Your task to perform on an android device: check storage Image 0: 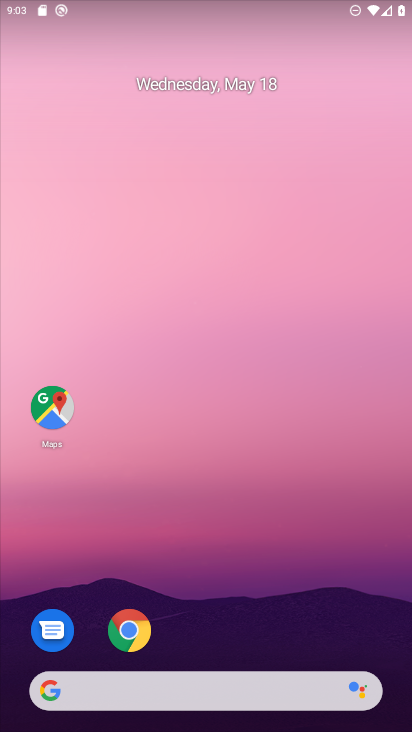
Step 0: drag from (209, 669) to (161, 92)
Your task to perform on an android device: check storage Image 1: 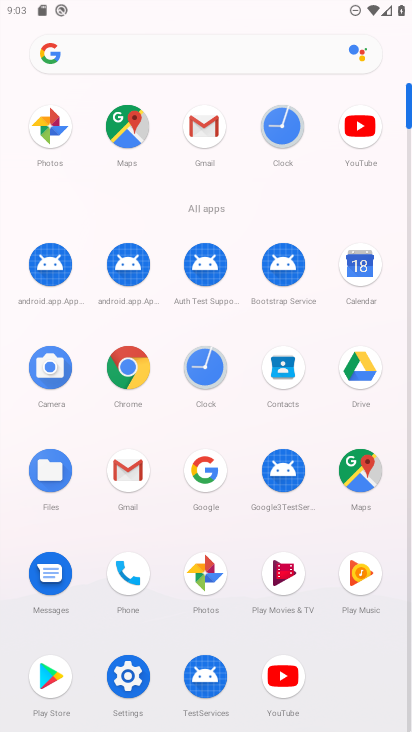
Step 1: click (142, 673)
Your task to perform on an android device: check storage Image 2: 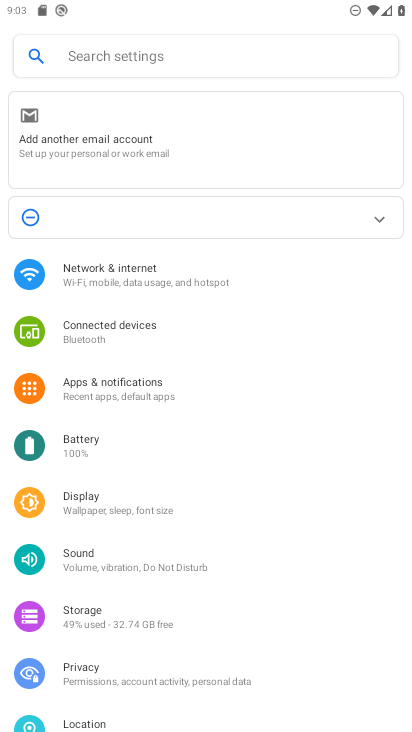
Step 2: drag from (175, 632) to (143, 361)
Your task to perform on an android device: check storage Image 3: 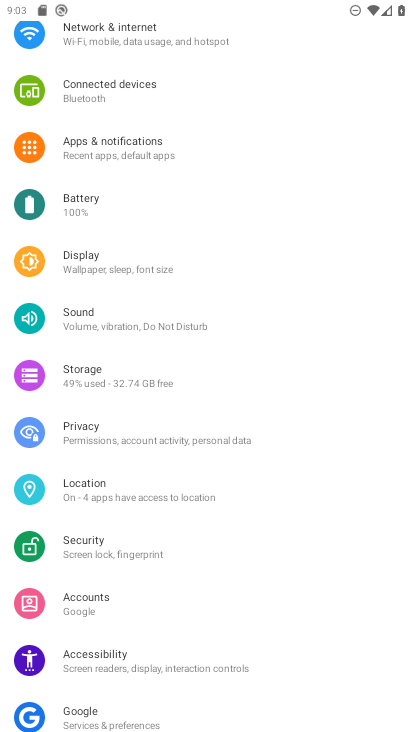
Step 3: click (87, 376)
Your task to perform on an android device: check storage Image 4: 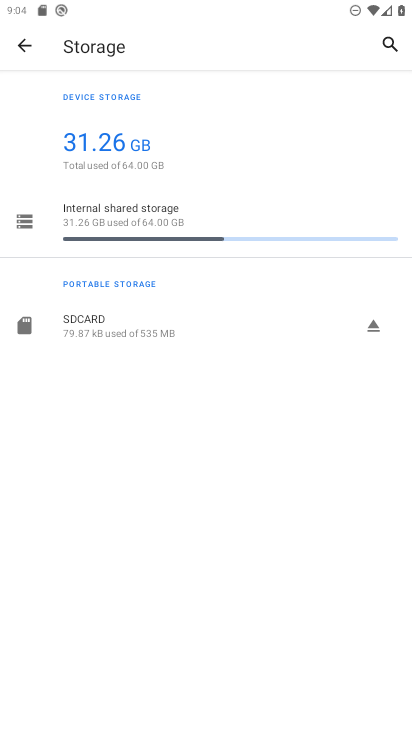
Step 4: task complete